Your task to perform on an android device: toggle improve location accuracy Image 0: 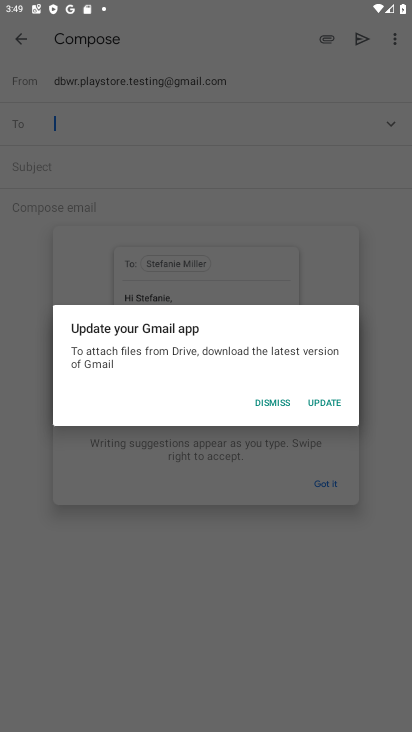
Step 0: press home button
Your task to perform on an android device: toggle improve location accuracy Image 1: 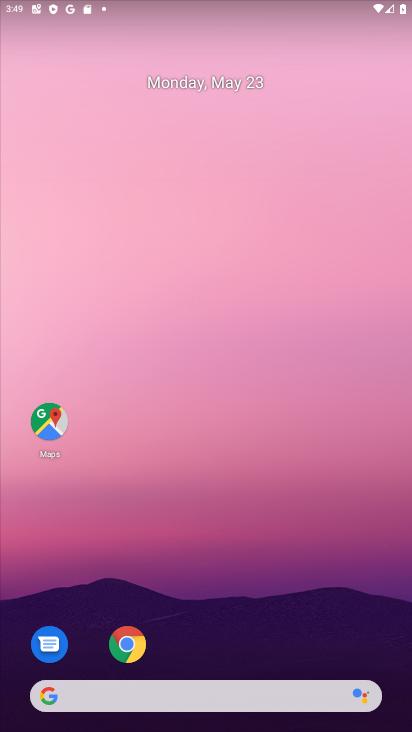
Step 1: drag from (246, 637) to (243, 231)
Your task to perform on an android device: toggle improve location accuracy Image 2: 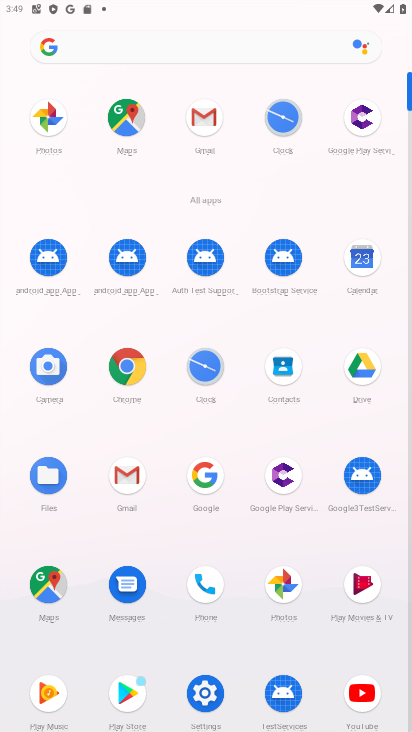
Step 2: click (201, 684)
Your task to perform on an android device: toggle improve location accuracy Image 3: 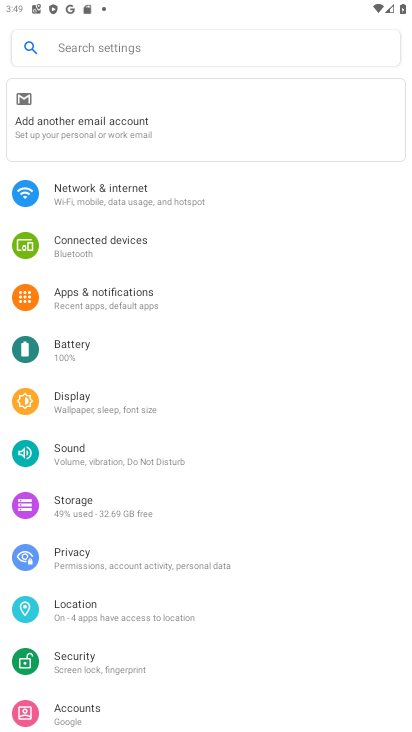
Step 3: click (187, 619)
Your task to perform on an android device: toggle improve location accuracy Image 4: 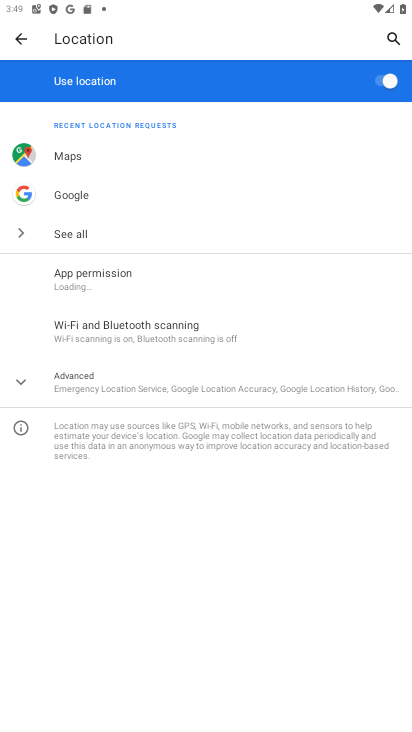
Step 4: click (179, 384)
Your task to perform on an android device: toggle improve location accuracy Image 5: 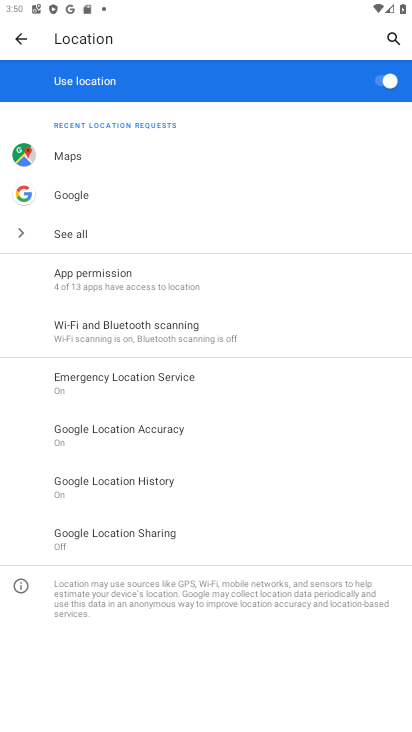
Step 5: click (190, 437)
Your task to perform on an android device: toggle improve location accuracy Image 6: 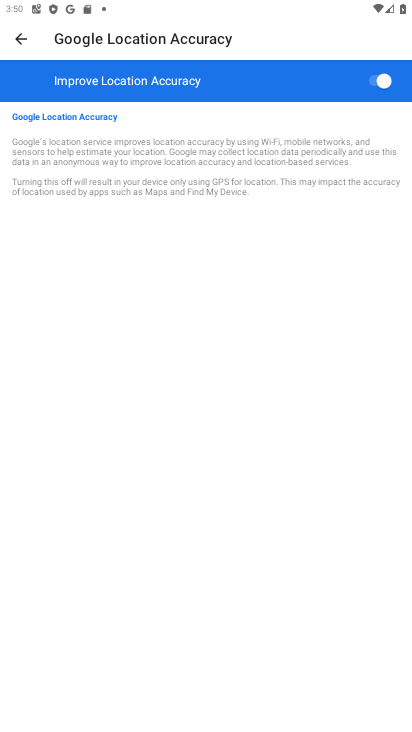
Step 6: click (381, 86)
Your task to perform on an android device: toggle improve location accuracy Image 7: 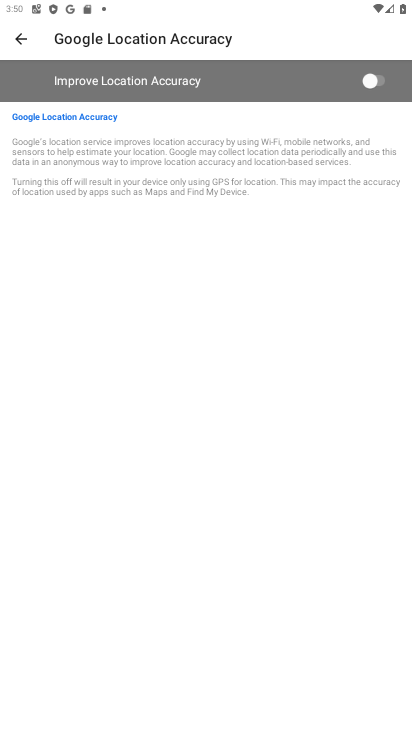
Step 7: task complete